Your task to perform on an android device: star an email in the gmail app Image 0: 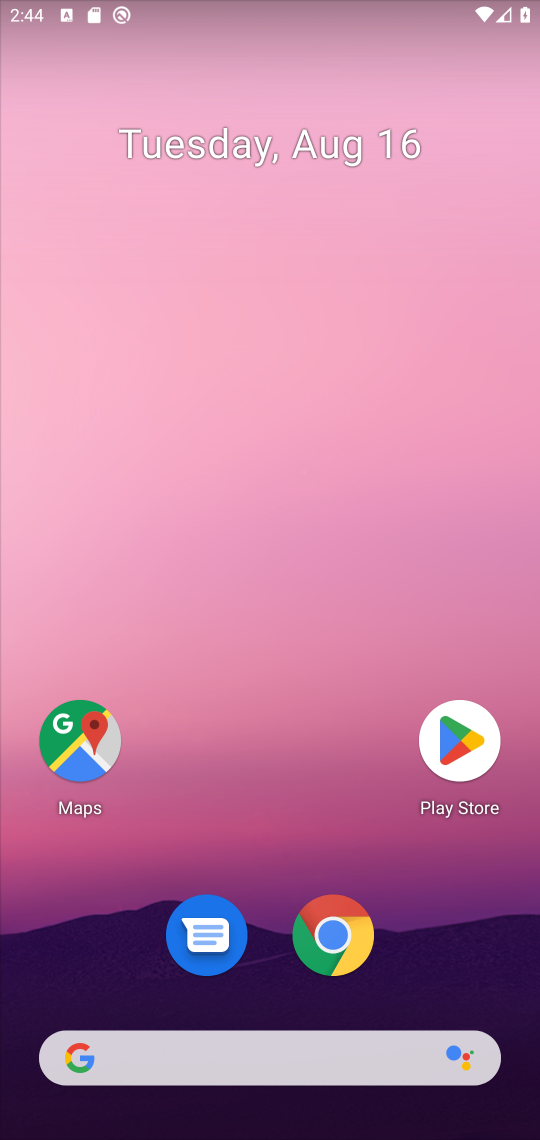
Step 0: drag from (455, 927) to (169, 124)
Your task to perform on an android device: star an email in the gmail app Image 1: 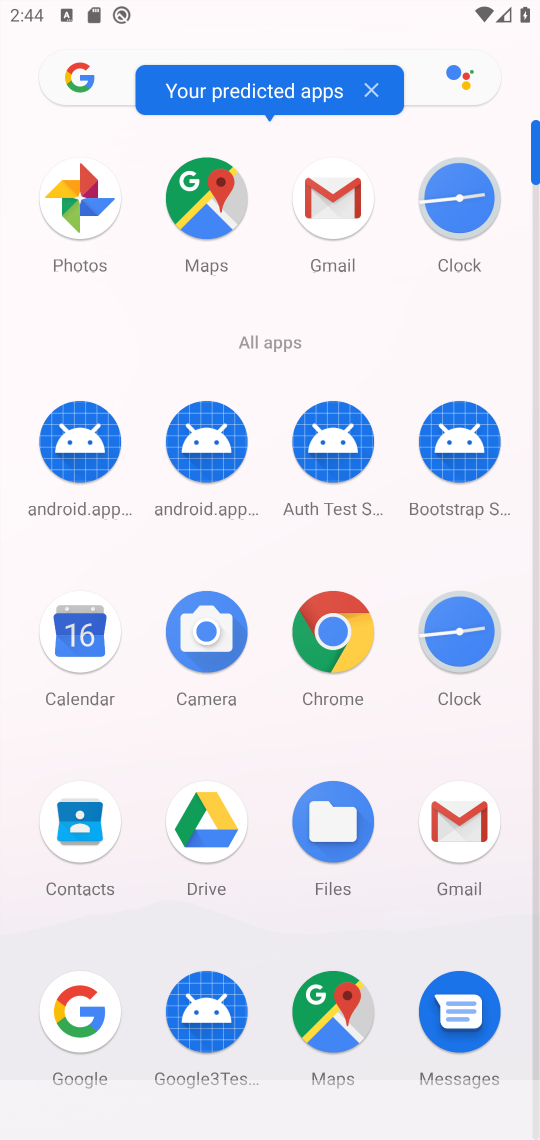
Step 1: click (459, 819)
Your task to perform on an android device: star an email in the gmail app Image 2: 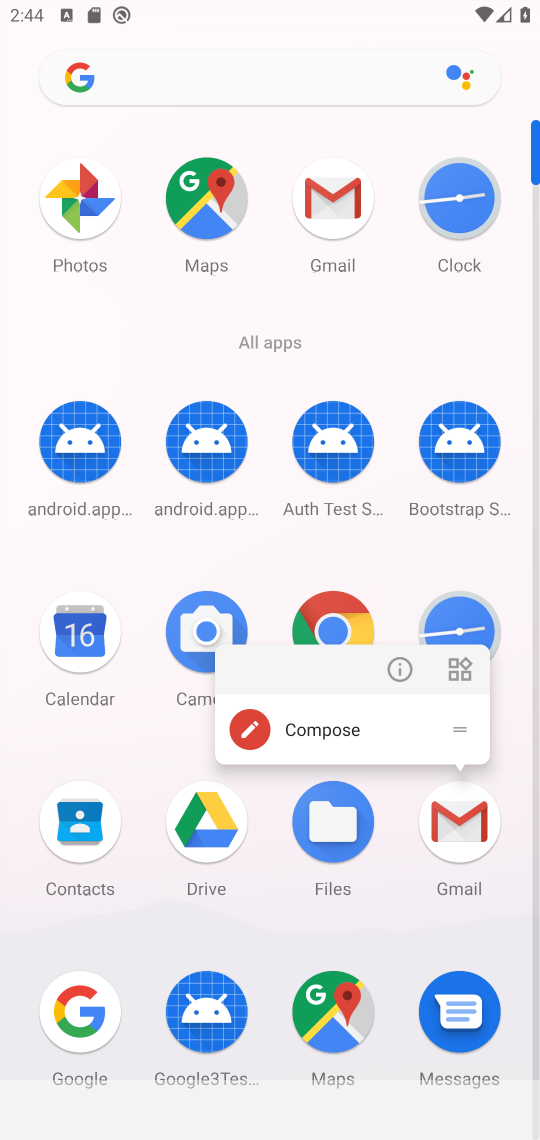
Step 2: click (459, 819)
Your task to perform on an android device: star an email in the gmail app Image 3: 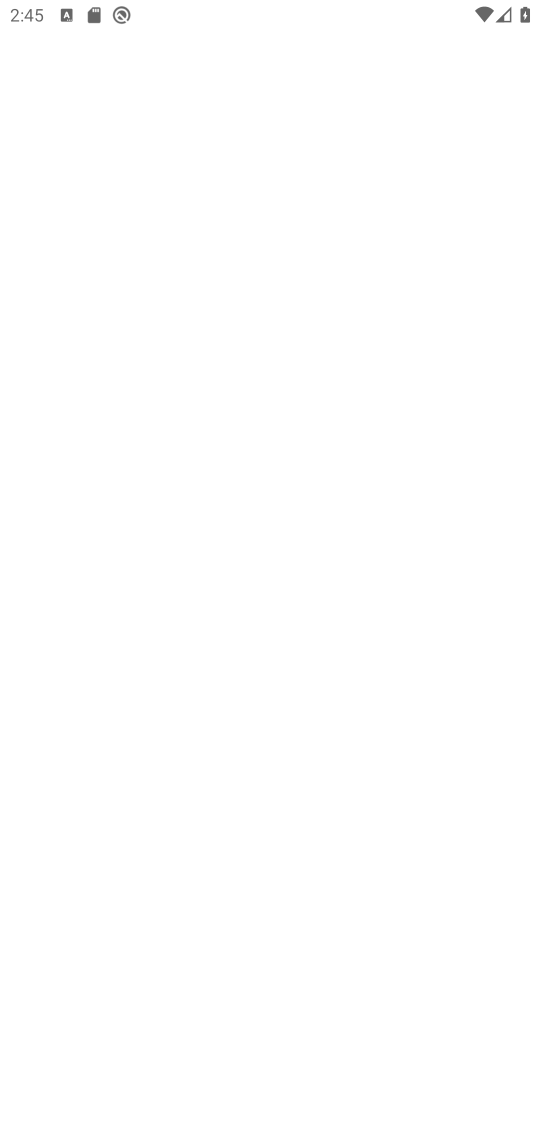
Step 3: task complete